Your task to perform on an android device: Go to Google maps Image 0: 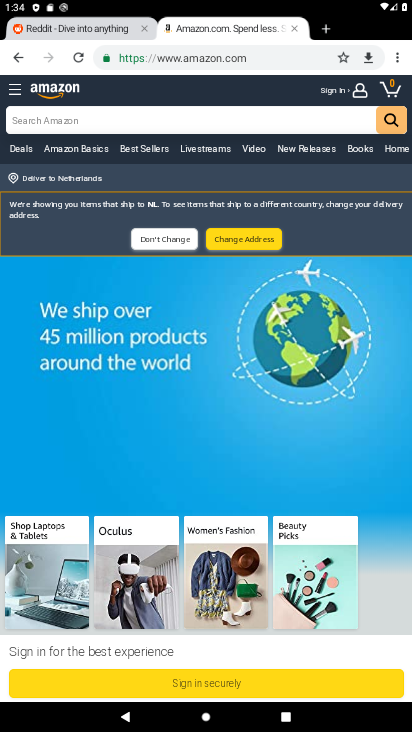
Step 0: drag from (221, 656) to (258, 191)
Your task to perform on an android device: Go to Google maps Image 1: 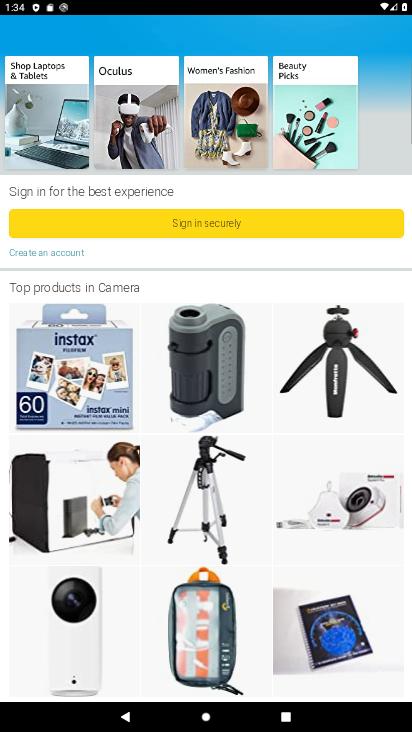
Step 1: drag from (280, 542) to (387, 727)
Your task to perform on an android device: Go to Google maps Image 2: 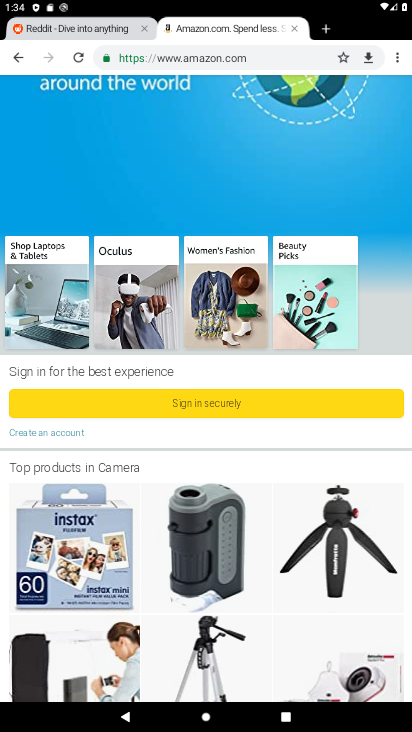
Step 2: drag from (229, 205) to (349, 708)
Your task to perform on an android device: Go to Google maps Image 3: 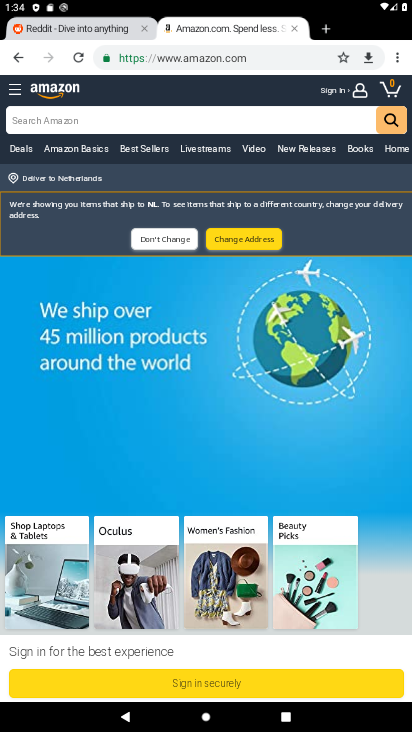
Step 3: drag from (166, 596) to (247, 305)
Your task to perform on an android device: Go to Google maps Image 4: 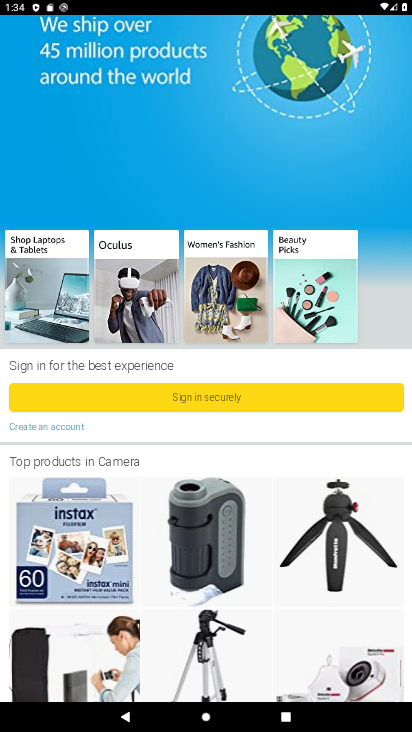
Step 4: press home button
Your task to perform on an android device: Go to Google maps Image 5: 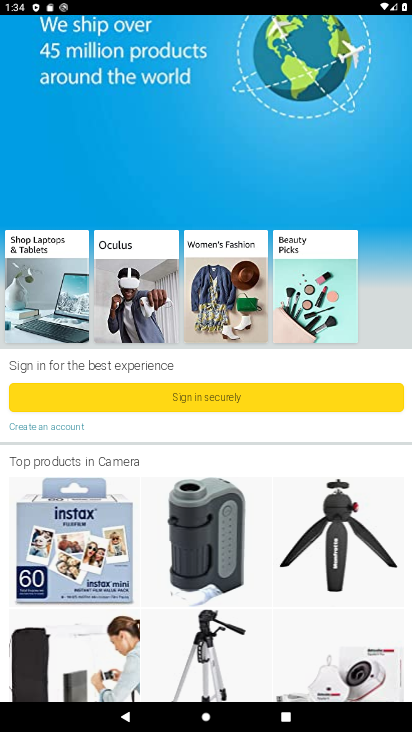
Step 5: drag from (189, 290) to (224, 176)
Your task to perform on an android device: Go to Google maps Image 6: 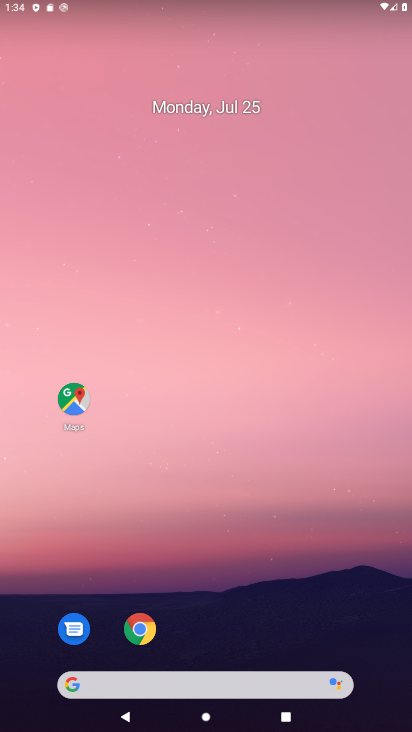
Step 6: click (64, 392)
Your task to perform on an android device: Go to Google maps Image 7: 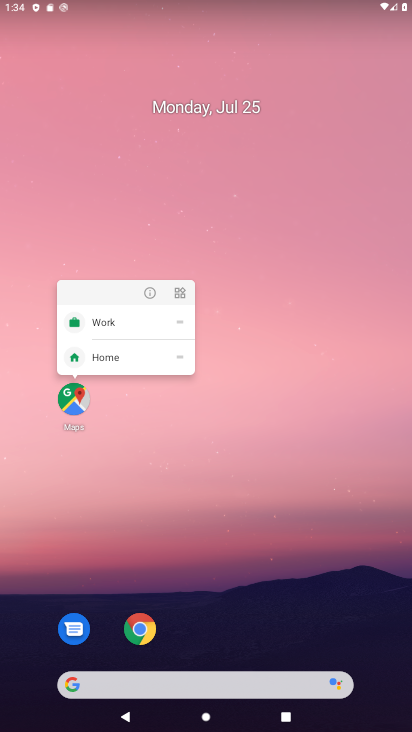
Step 7: drag from (192, 588) to (333, 98)
Your task to perform on an android device: Go to Google maps Image 8: 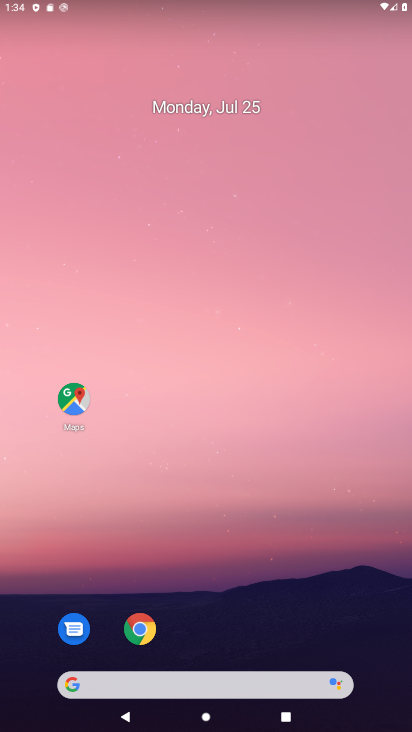
Step 8: drag from (207, 564) to (325, 65)
Your task to perform on an android device: Go to Google maps Image 9: 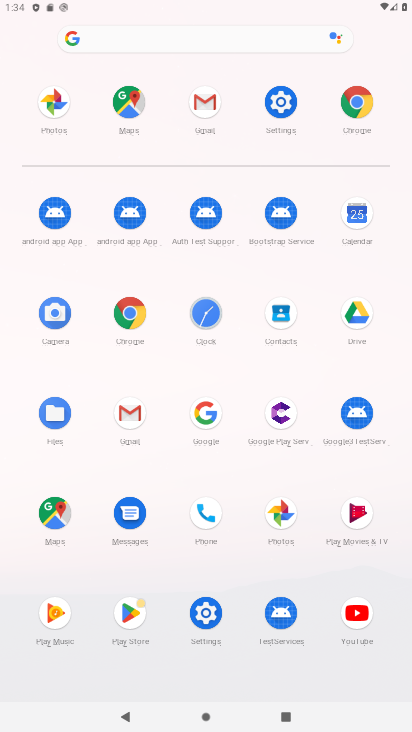
Step 9: click (58, 513)
Your task to perform on an android device: Go to Google maps Image 10: 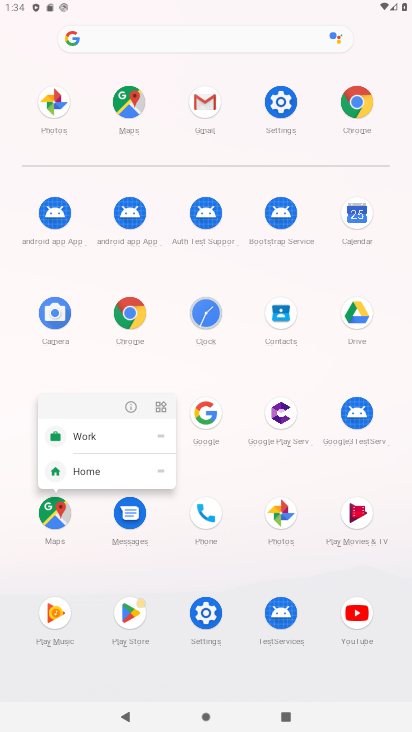
Step 10: click (126, 408)
Your task to perform on an android device: Go to Google maps Image 11: 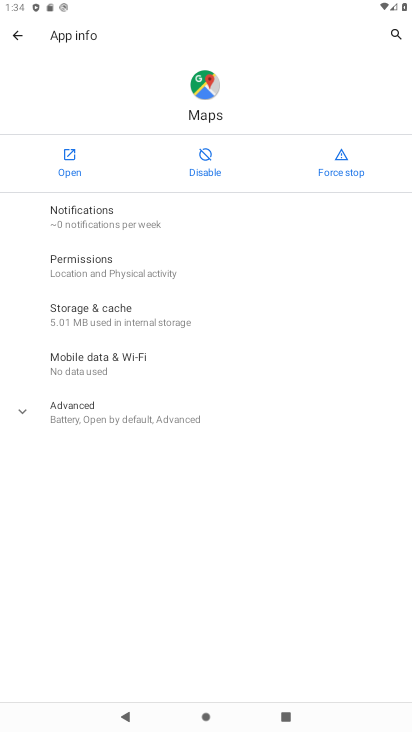
Step 11: click (63, 165)
Your task to perform on an android device: Go to Google maps Image 12: 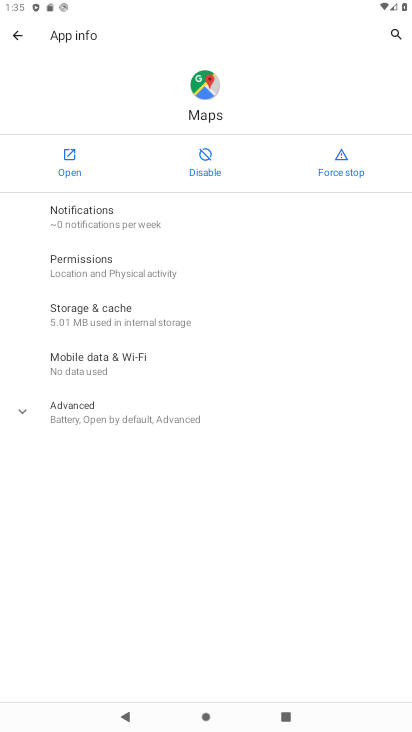
Step 12: click (69, 164)
Your task to perform on an android device: Go to Google maps Image 13: 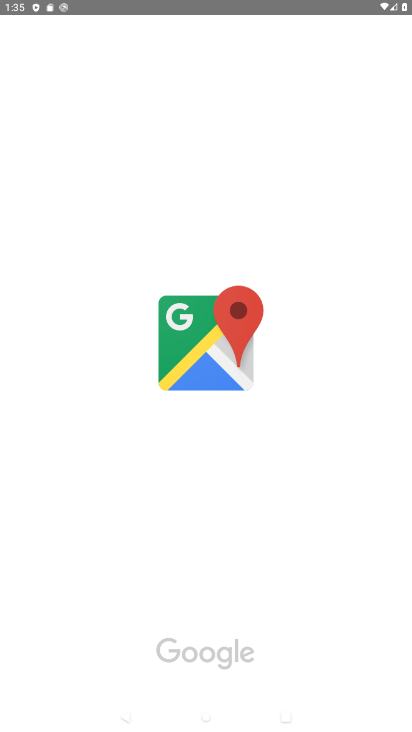
Step 13: drag from (215, 455) to (281, 140)
Your task to perform on an android device: Go to Google maps Image 14: 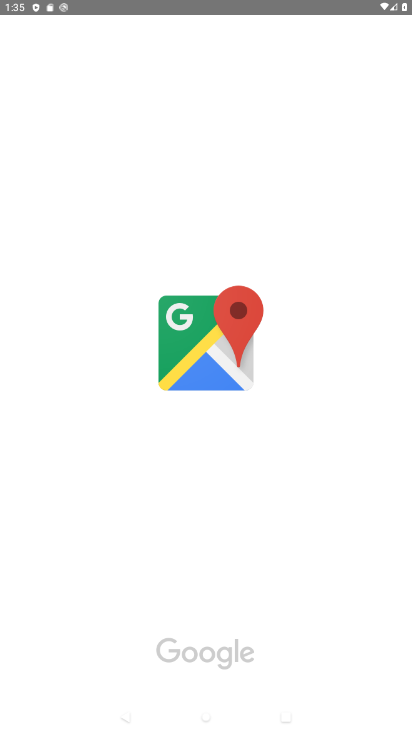
Step 14: drag from (260, 497) to (314, 135)
Your task to perform on an android device: Go to Google maps Image 15: 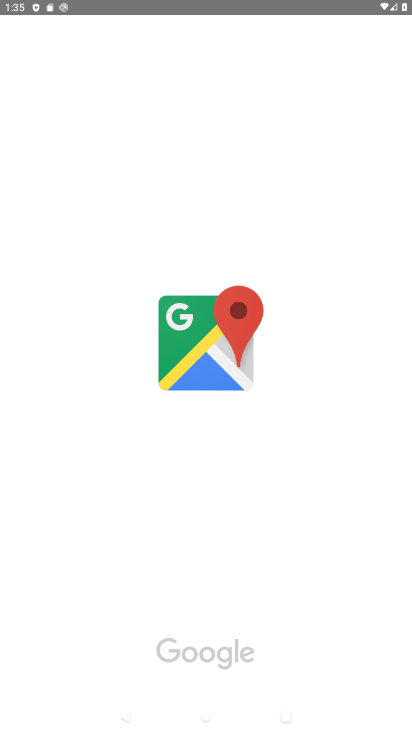
Step 15: drag from (270, 527) to (299, 158)
Your task to perform on an android device: Go to Google maps Image 16: 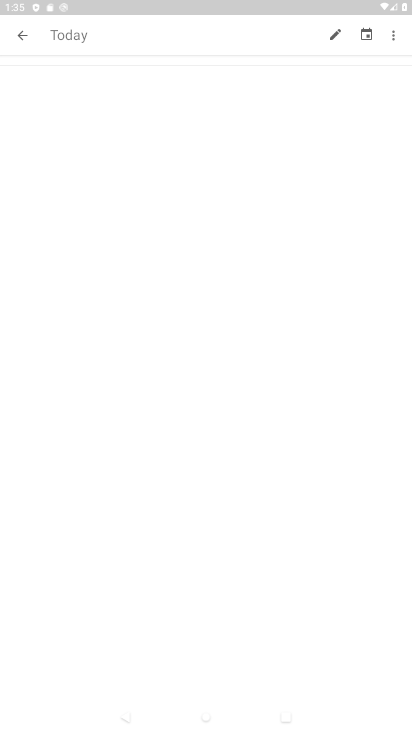
Step 16: drag from (156, 574) to (214, 240)
Your task to perform on an android device: Go to Google maps Image 17: 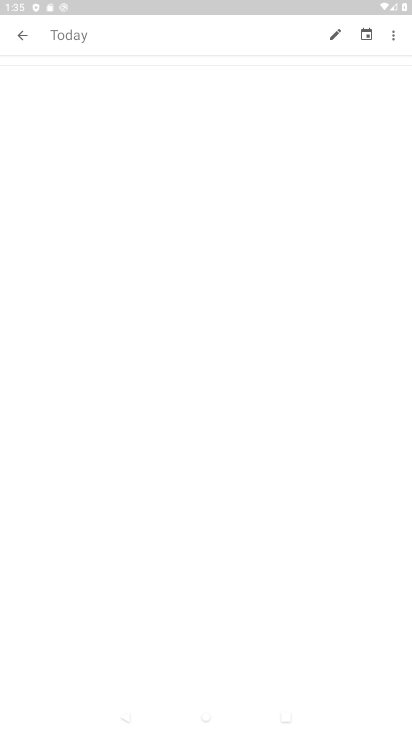
Step 17: drag from (151, 160) to (286, 670)
Your task to perform on an android device: Go to Google maps Image 18: 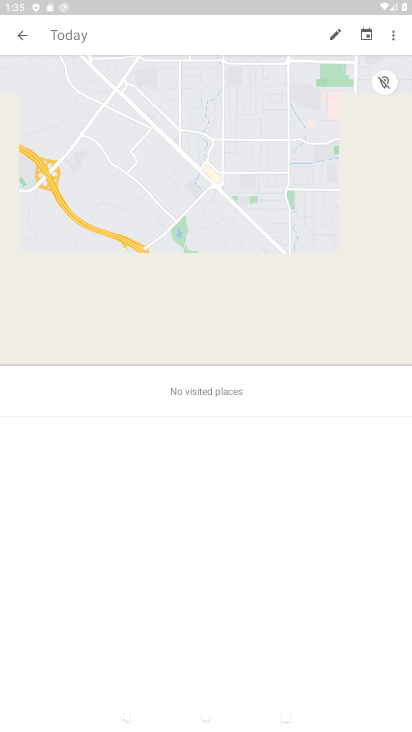
Step 18: click (11, 38)
Your task to perform on an android device: Go to Google maps Image 19: 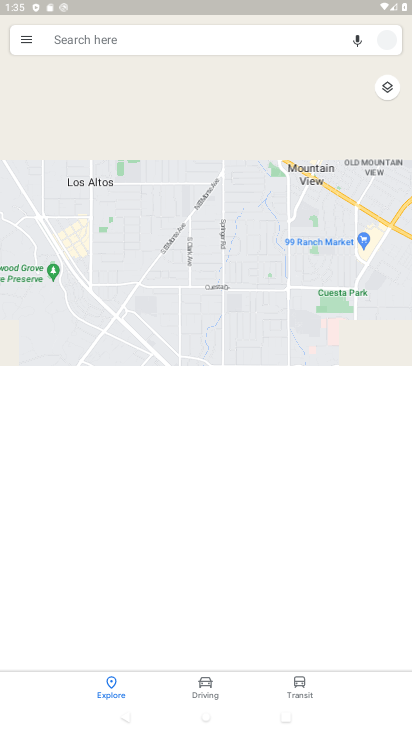
Step 19: task complete